Your task to perform on an android device: Open Google Chrome and open the bookmarks view Image 0: 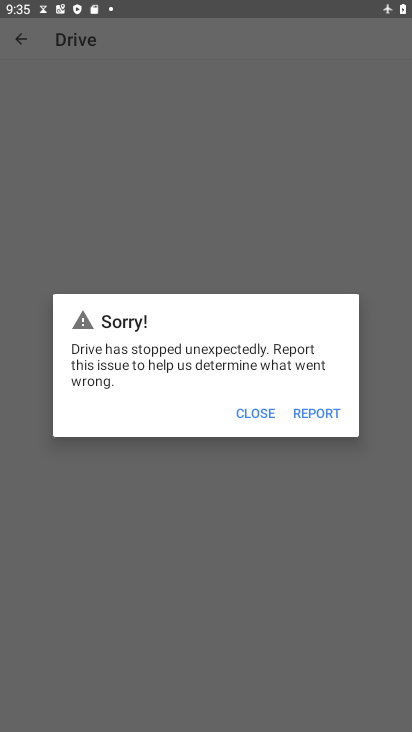
Step 0: press home button
Your task to perform on an android device: Open Google Chrome and open the bookmarks view Image 1: 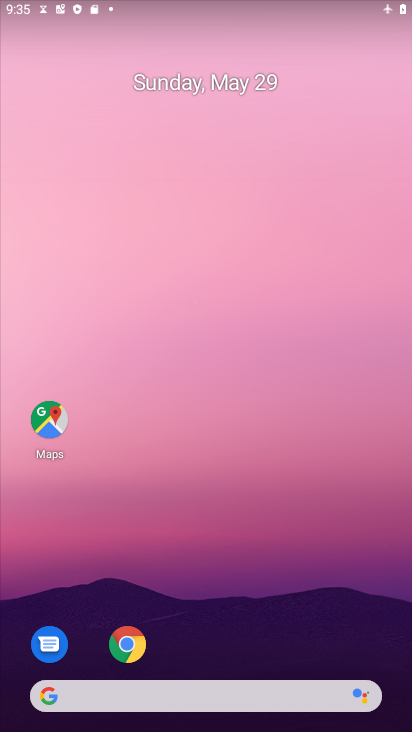
Step 1: click (121, 635)
Your task to perform on an android device: Open Google Chrome and open the bookmarks view Image 2: 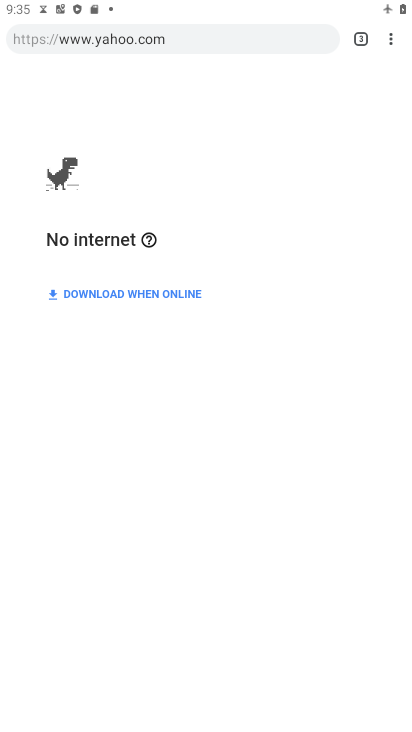
Step 2: click (389, 28)
Your task to perform on an android device: Open Google Chrome and open the bookmarks view Image 3: 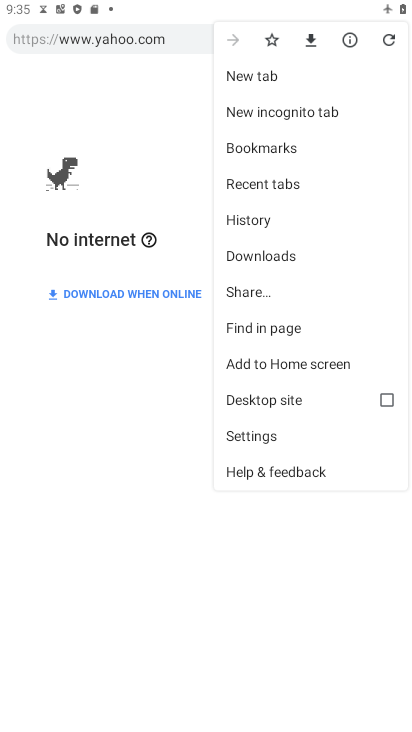
Step 3: click (281, 428)
Your task to perform on an android device: Open Google Chrome and open the bookmarks view Image 4: 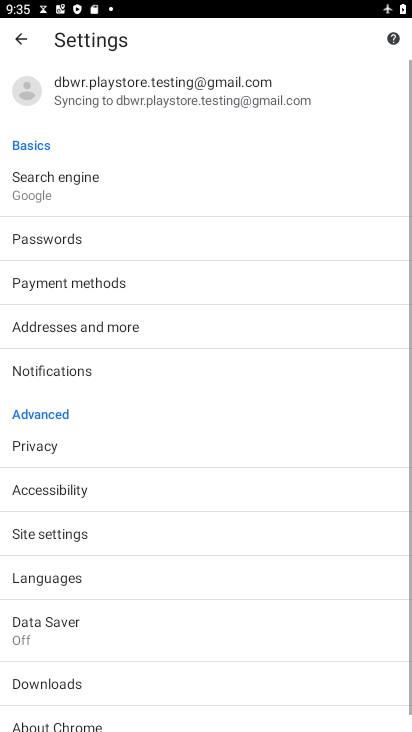
Step 4: click (13, 45)
Your task to perform on an android device: Open Google Chrome and open the bookmarks view Image 5: 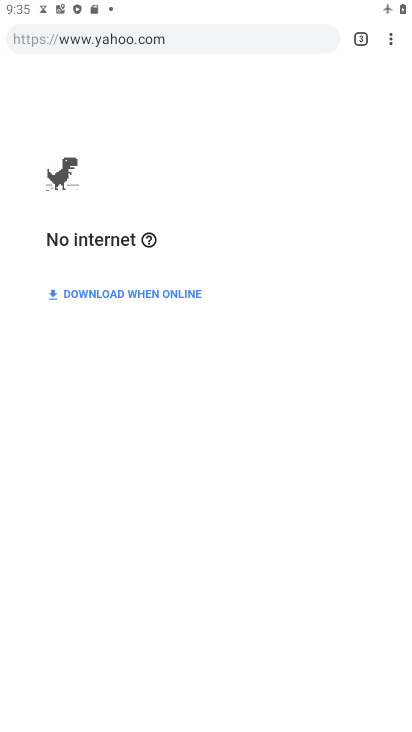
Step 5: click (397, 33)
Your task to perform on an android device: Open Google Chrome and open the bookmarks view Image 6: 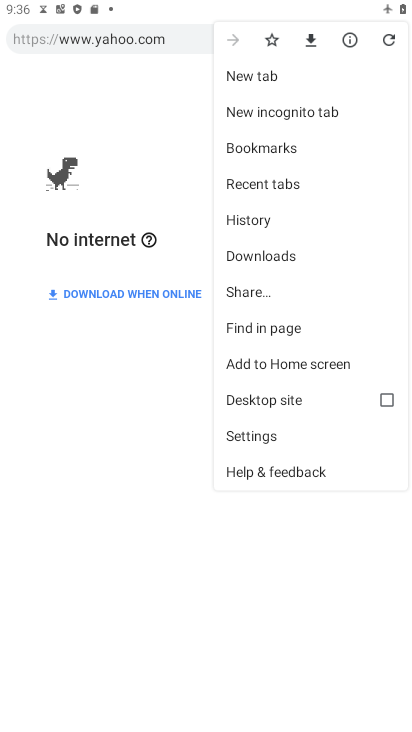
Step 6: click (274, 140)
Your task to perform on an android device: Open Google Chrome and open the bookmarks view Image 7: 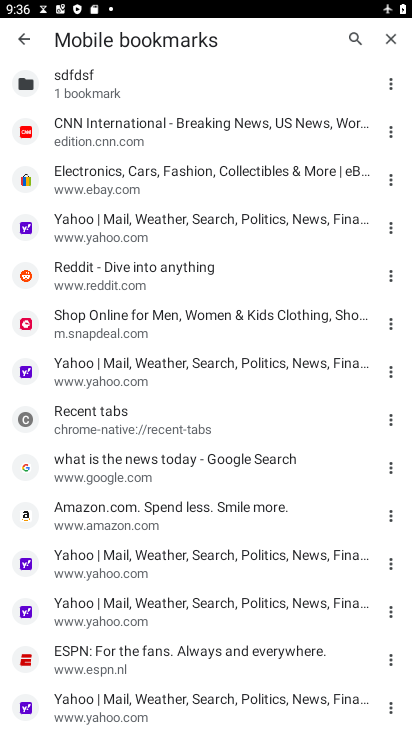
Step 7: task complete